Your task to perform on an android device: Search for vegetarian restaurants on Maps Image 0: 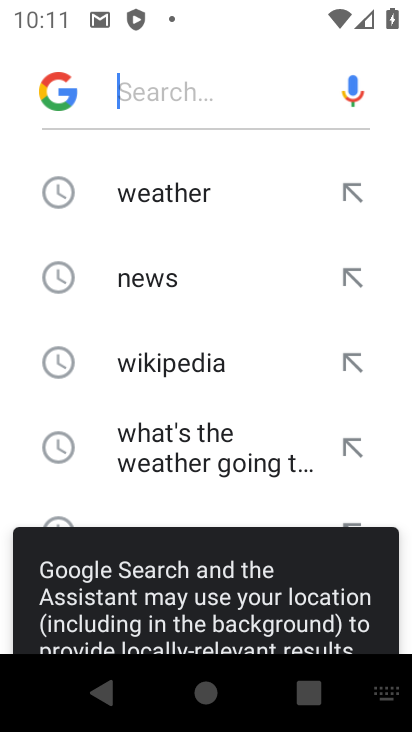
Step 0: press back button
Your task to perform on an android device: Search for vegetarian restaurants on Maps Image 1: 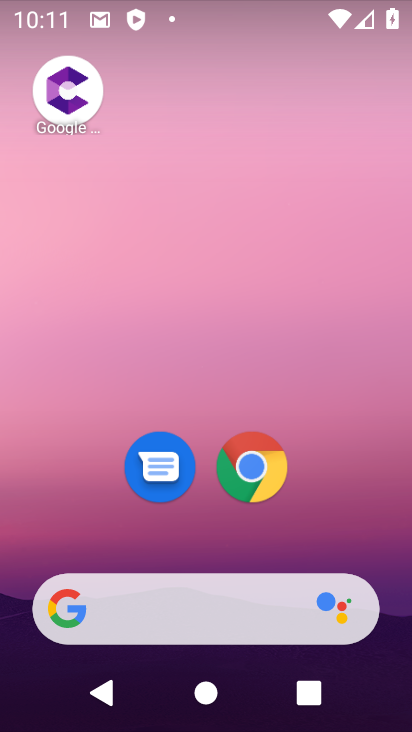
Step 1: drag from (382, 659) to (317, 126)
Your task to perform on an android device: Search for vegetarian restaurants on Maps Image 2: 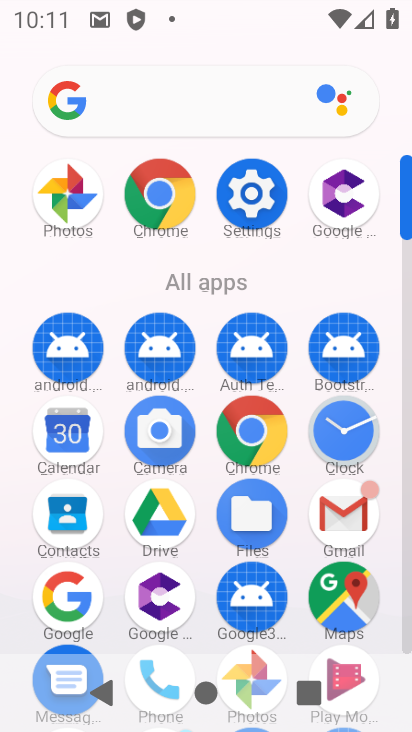
Step 2: click (333, 593)
Your task to perform on an android device: Search for vegetarian restaurants on Maps Image 3: 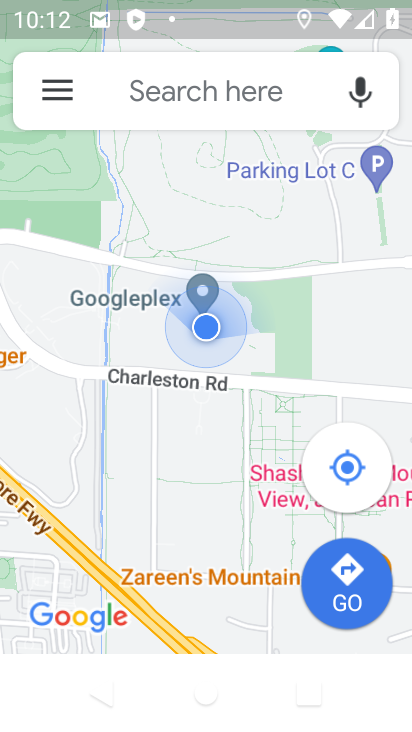
Step 3: click (185, 89)
Your task to perform on an android device: Search for vegetarian restaurants on Maps Image 4: 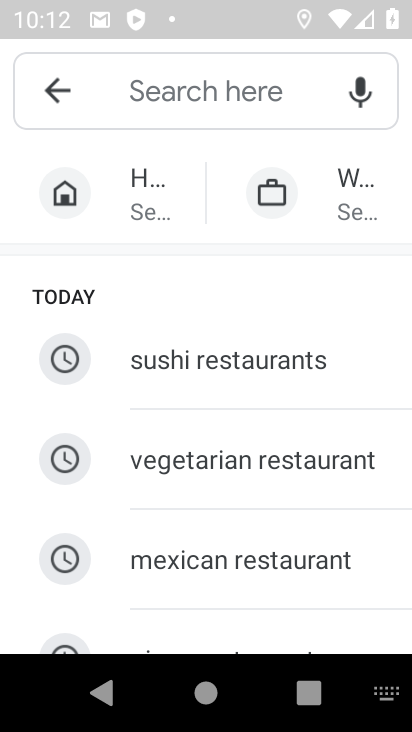
Step 4: type "vegetarian restaurants "
Your task to perform on an android device: Search for vegetarian restaurants on Maps Image 5: 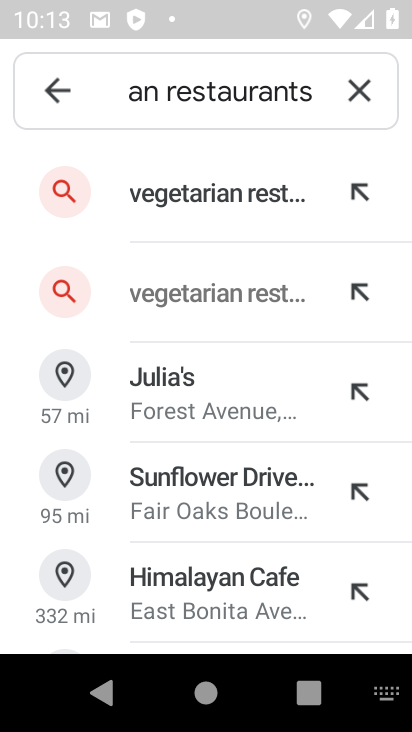
Step 5: click (196, 190)
Your task to perform on an android device: Search for vegetarian restaurants on Maps Image 6: 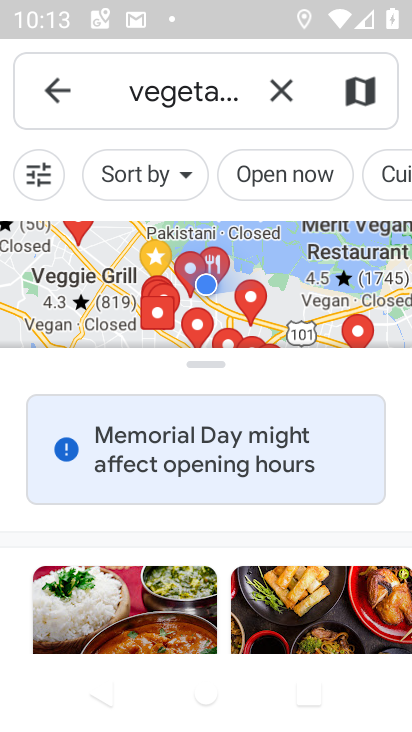
Step 6: task complete